Your task to perform on an android device: What's the weather going to be tomorrow? Image 0: 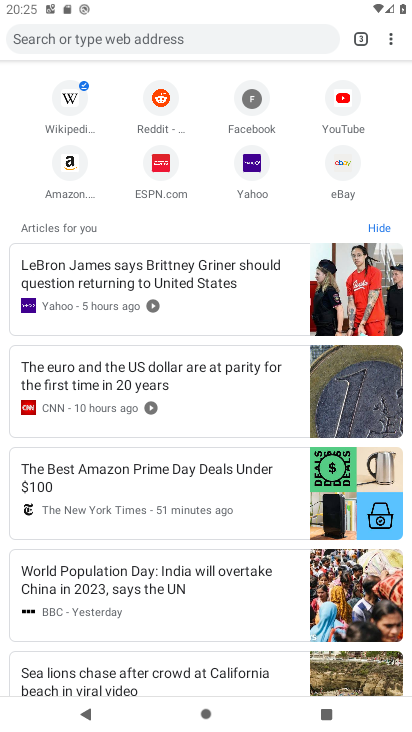
Step 0: click (159, 106)
Your task to perform on an android device: What's the weather going to be tomorrow? Image 1: 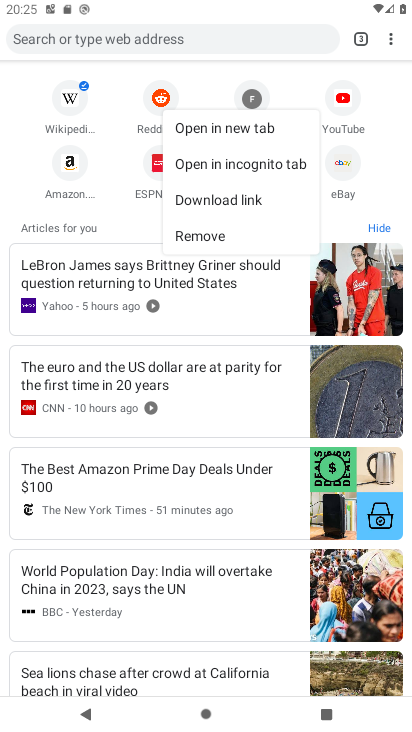
Step 1: press home button
Your task to perform on an android device: What's the weather going to be tomorrow? Image 2: 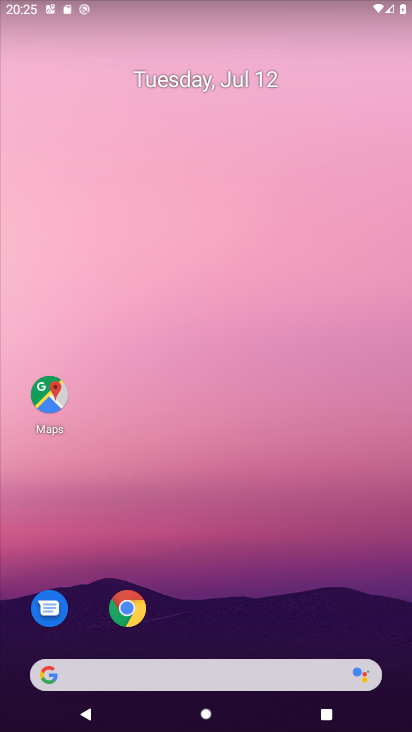
Step 2: click (168, 669)
Your task to perform on an android device: What's the weather going to be tomorrow? Image 3: 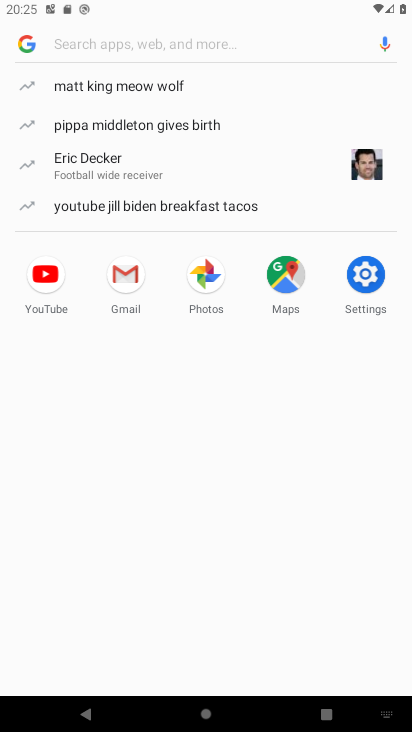
Step 3: click (203, 41)
Your task to perform on an android device: What's the weather going to be tomorrow? Image 4: 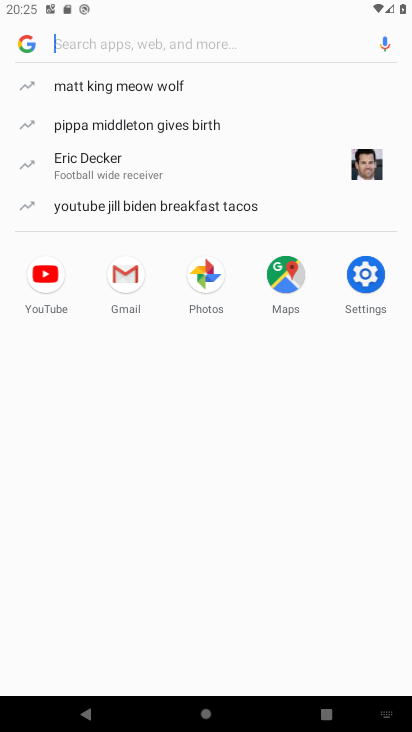
Step 4: type " weather going to be tomorrow"
Your task to perform on an android device: What's the weather going to be tomorrow? Image 5: 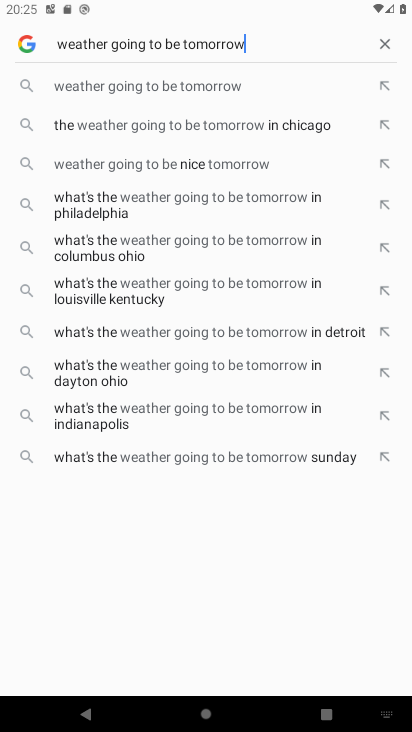
Step 5: click (195, 84)
Your task to perform on an android device: What's the weather going to be tomorrow? Image 6: 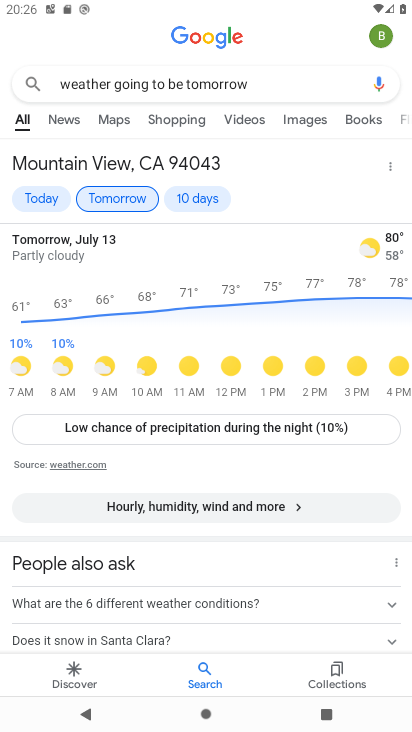
Step 6: task complete